Your task to perform on an android device: turn on airplane mode Image 0: 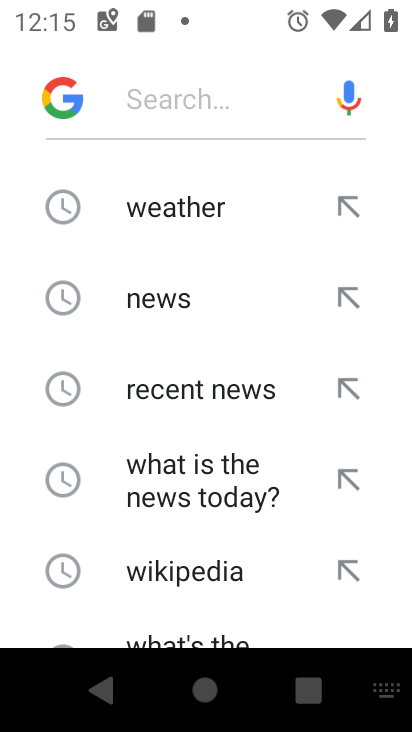
Step 0: press home button
Your task to perform on an android device: turn on airplane mode Image 1: 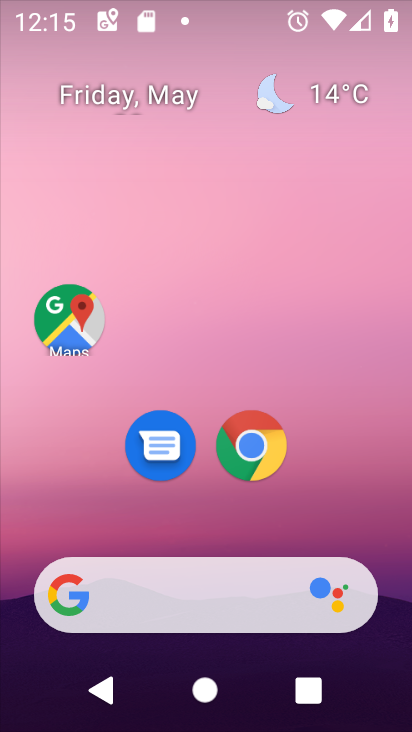
Step 1: drag from (210, 383) to (187, 198)
Your task to perform on an android device: turn on airplane mode Image 2: 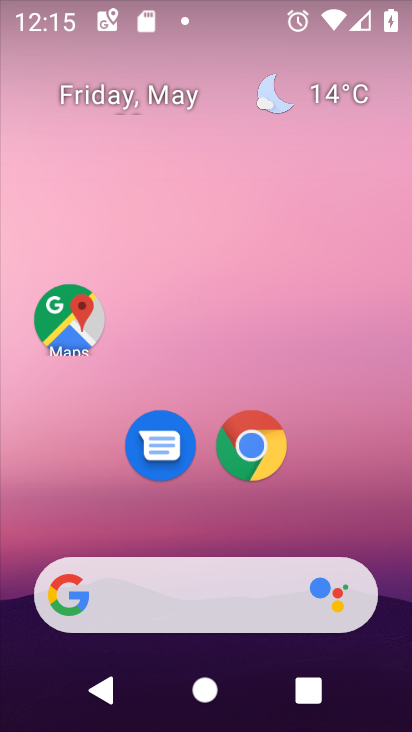
Step 2: drag from (181, 355) to (206, 148)
Your task to perform on an android device: turn on airplane mode Image 3: 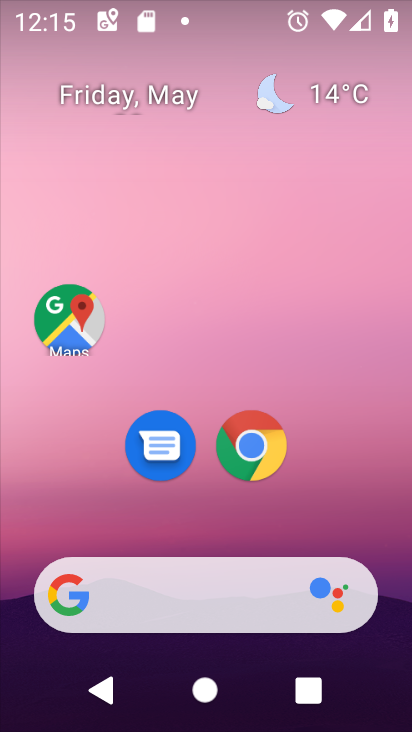
Step 3: drag from (163, 347) to (194, 133)
Your task to perform on an android device: turn on airplane mode Image 4: 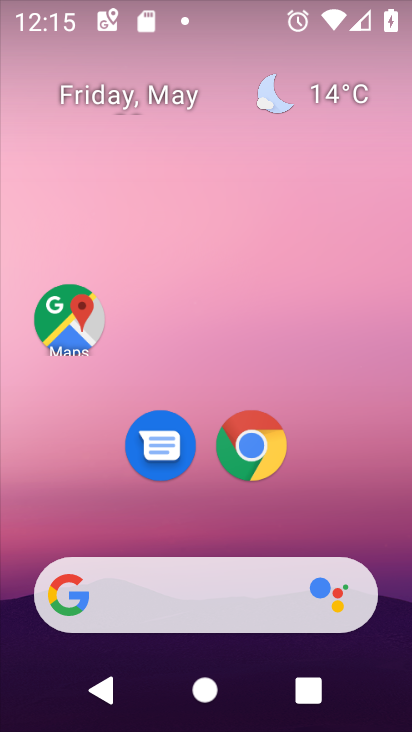
Step 4: drag from (189, 370) to (141, 117)
Your task to perform on an android device: turn on airplane mode Image 5: 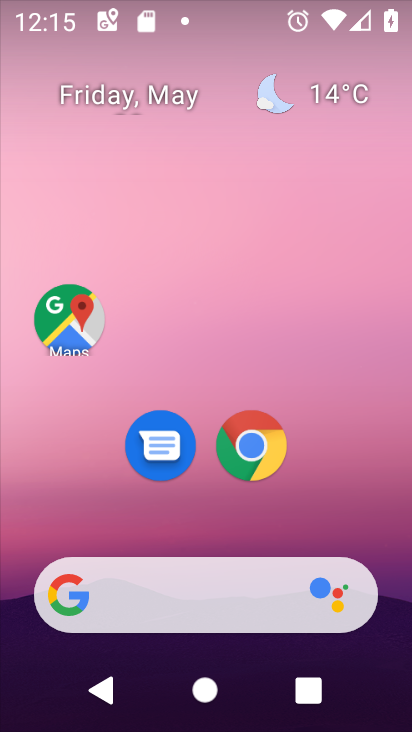
Step 5: drag from (194, 524) to (190, 196)
Your task to perform on an android device: turn on airplane mode Image 6: 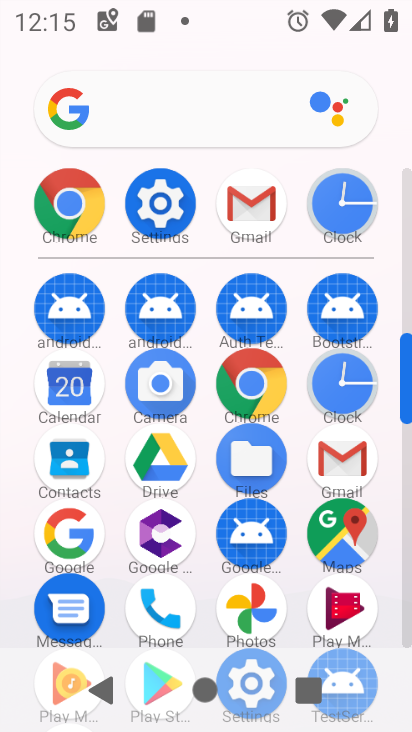
Step 6: click (182, 218)
Your task to perform on an android device: turn on airplane mode Image 7: 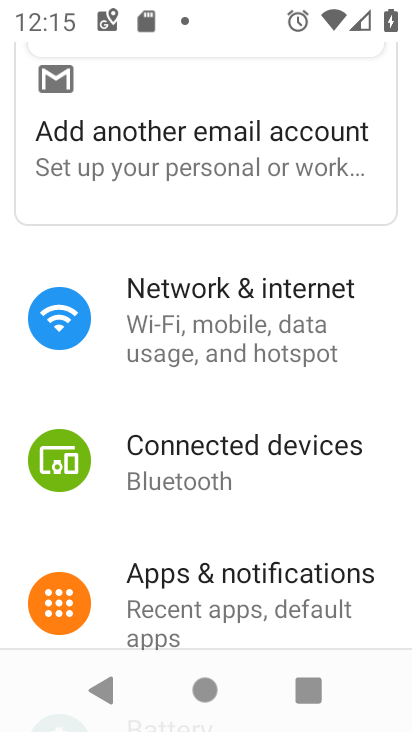
Step 7: drag from (238, 330) to (314, 590)
Your task to perform on an android device: turn on airplane mode Image 8: 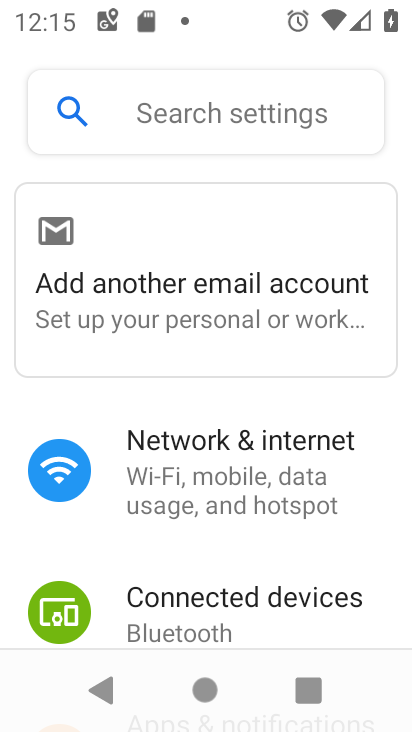
Step 8: click (272, 469)
Your task to perform on an android device: turn on airplane mode Image 9: 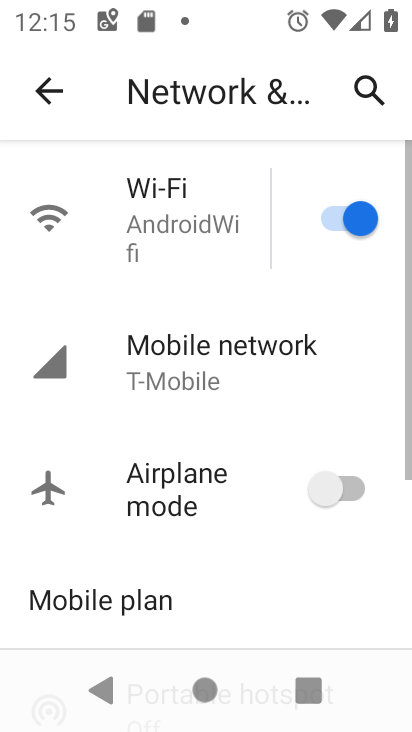
Step 9: click (373, 461)
Your task to perform on an android device: turn on airplane mode Image 10: 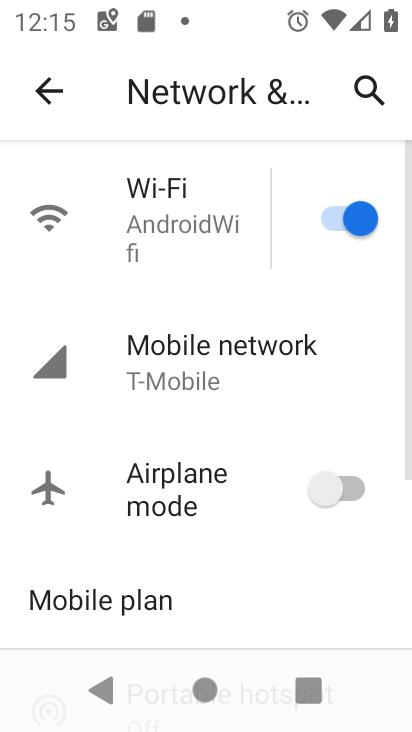
Step 10: click (346, 487)
Your task to perform on an android device: turn on airplane mode Image 11: 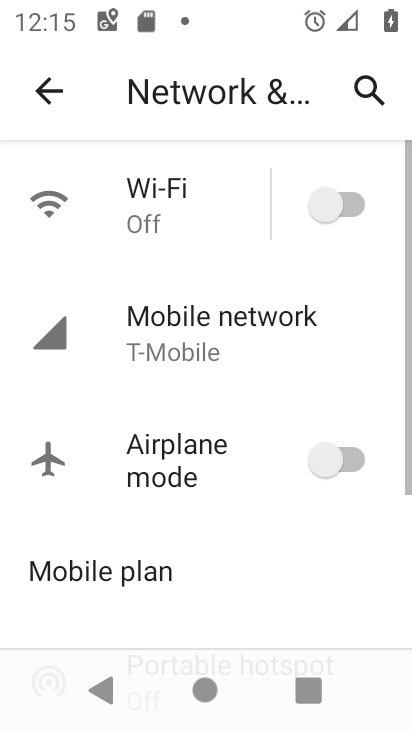
Step 11: task complete